Your task to perform on an android device: change timer sound Image 0: 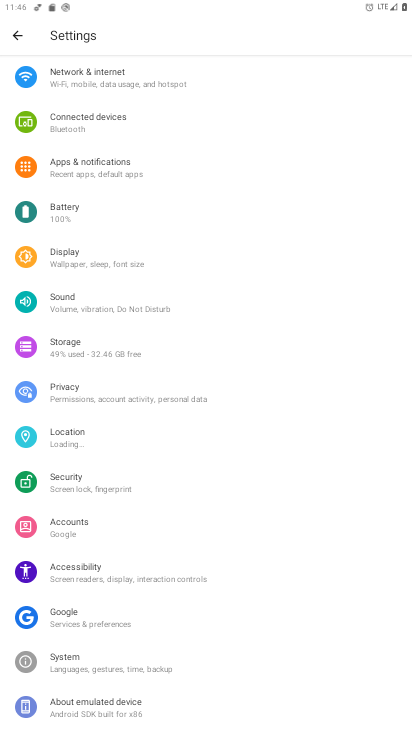
Step 0: press home button
Your task to perform on an android device: change timer sound Image 1: 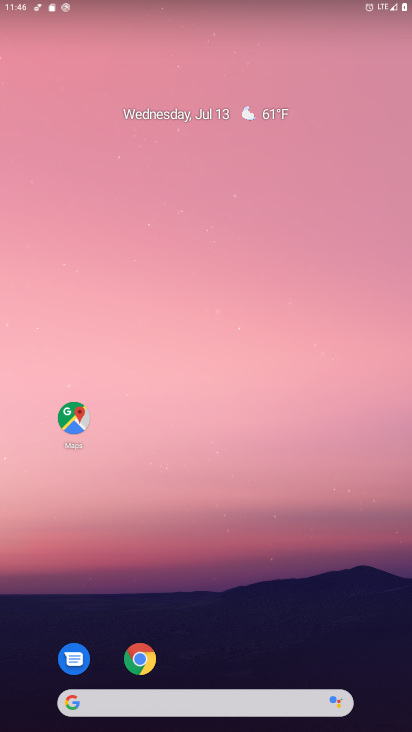
Step 1: drag from (222, 670) to (210, 13)
Your task to perform on an android device: change timer sound Image 2: 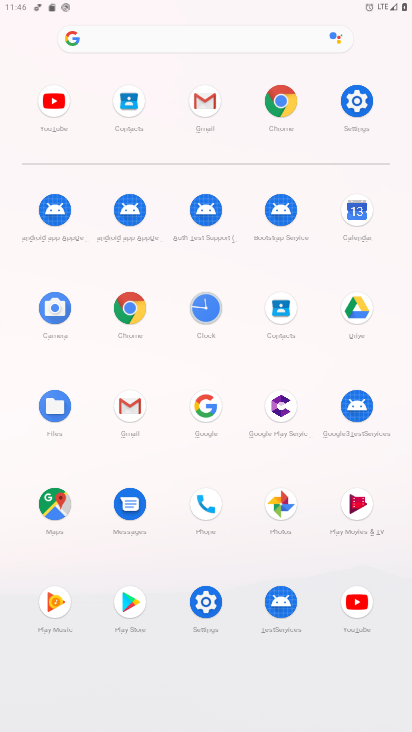
Step 2: click (200, 300)
Your task to perform on an android device: change timer sound Image 3: 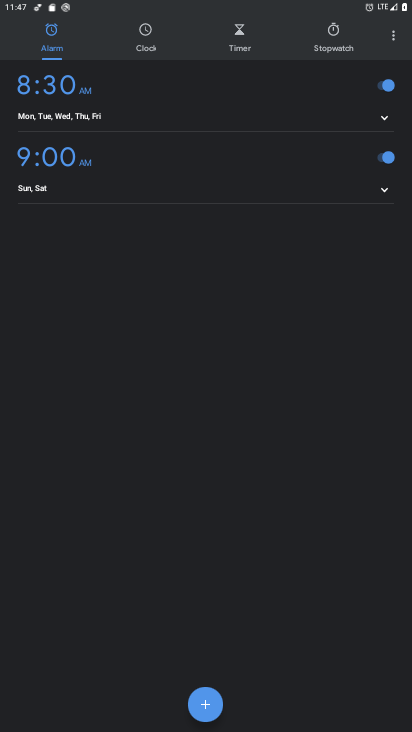
Step 3: click (395, 35)
Your task to perform on an android device: change timer sound Image 4: 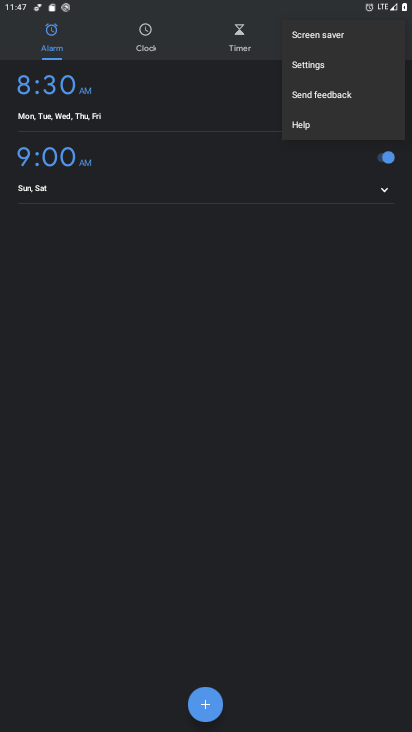
Step 4: click (319, 67)
Your task to perform on an android device: change timer sound Image 5: 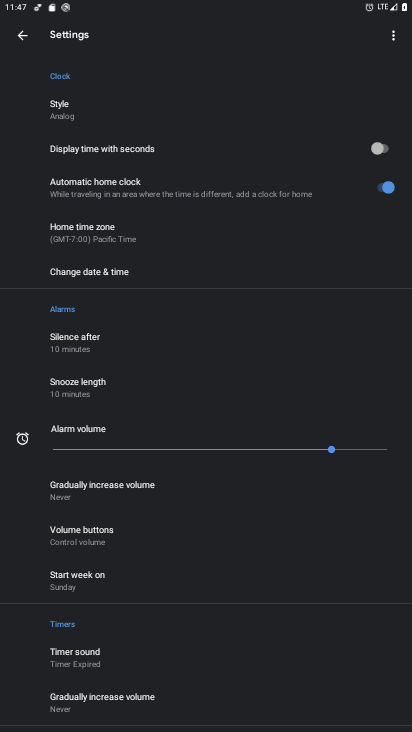
Step 5: click (109, 660)
Your task to perform on an android device: change timer sound Image 6: 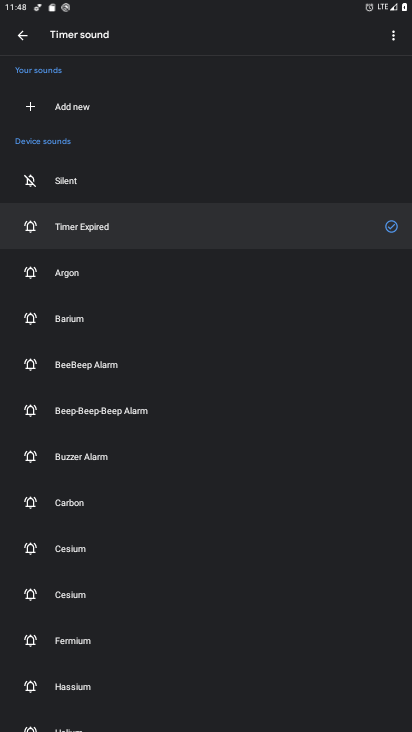
Step 6: click (116, 645)
Your task to perform on an android device: change timer sound Image 7: 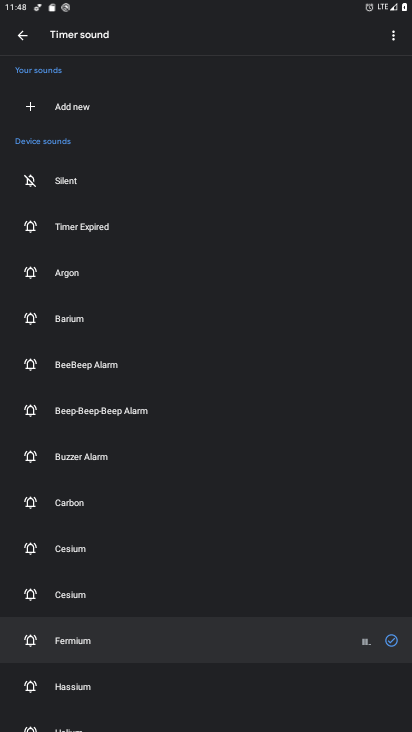
Step 7: task complete